Your task to perform on an android device: View the shopping cart on newegg. Add "dell xps" to the cart on newegg, then select checkout. Image 0: 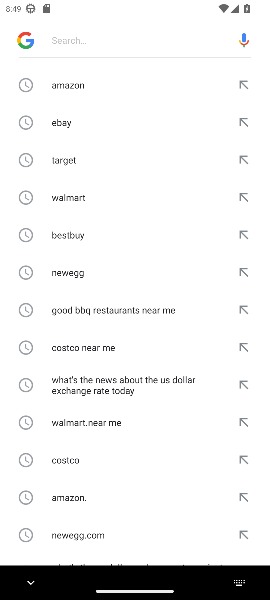
Step 0: press home button
Your task to perform on an android device: View the shopping cart on newegg. Add "dell xps" to the cart on newegg, then select checkout. Image 1: 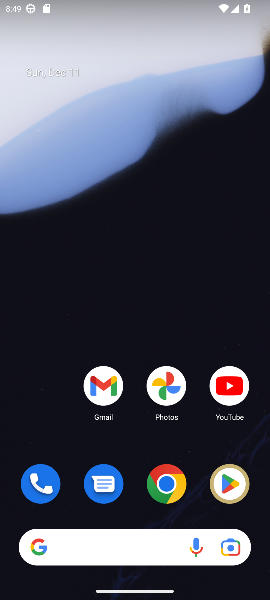
Step 1: click (167, 486)
Your task to perform on an android device: View the shopping cart on newegg. Add "dell xps" to the cart on newegg, then select checkout. Image 2: 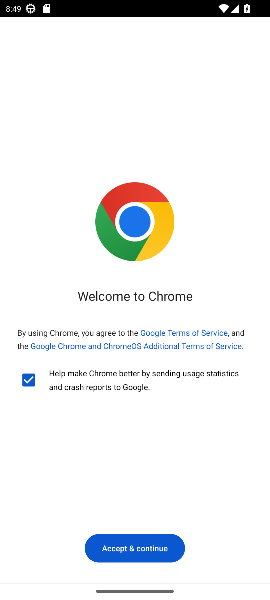
Step 2: click (128, 554)
Your task to perform on an android device: View the shopping cart on newegg. Add "dell xps" to the cart on newegg, then select checkout. Image 3: 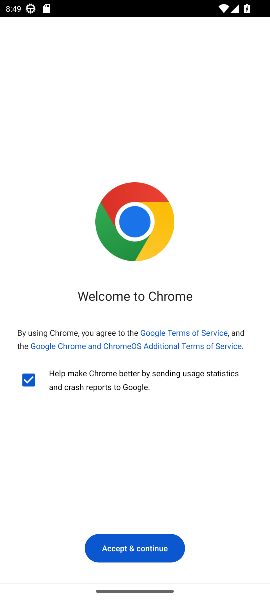
Step 3: click (128, 554)
Your task to perform on an android device: View the shopping cart on newegg. Add "dell xps" to the cart on newegg, then select checkout. Image 4: 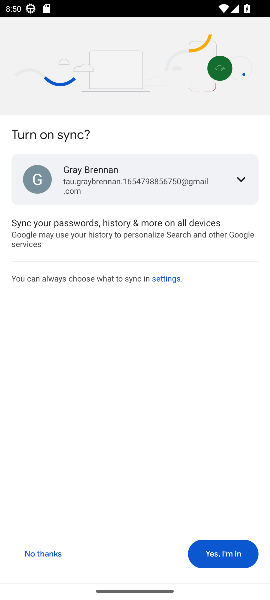
Step 4: click (128, 554)
Your task to perform on an android device: View the shopping cart on newegg. Add "dell xps" to the cart on newegg, then select checkout. Image 5: 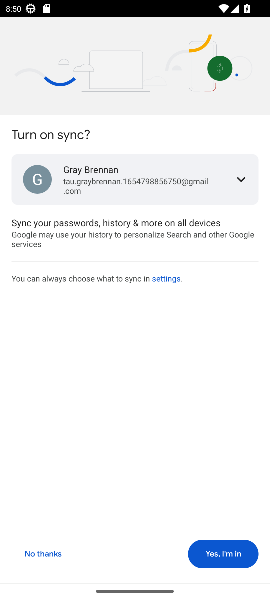
Step 5: click (128, 554)
Your task to perform on an android device: View the shopping cart on newegg. Add "dell xps" to the cart on newegg, then select checkout. Image 6: 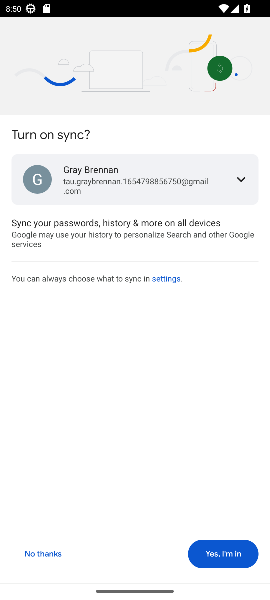
Step 6: click (128, 554)
Your task to perform on an android device: View the shopping cart on newegg. Add "dell xps" to the cart on newegg, then select checkout. Image 7: 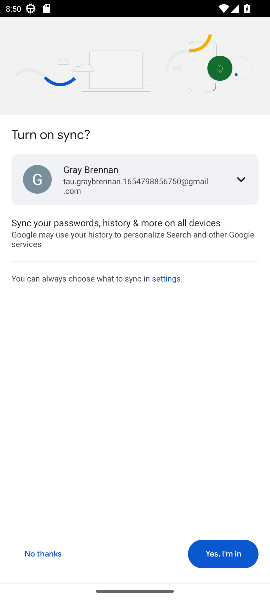
Step 7: click (128, 554)
Your task to perform on an android device: View the shopping cart on newegg. Add "dell xps" to the cart on newegg, then select checkout. Image 8: 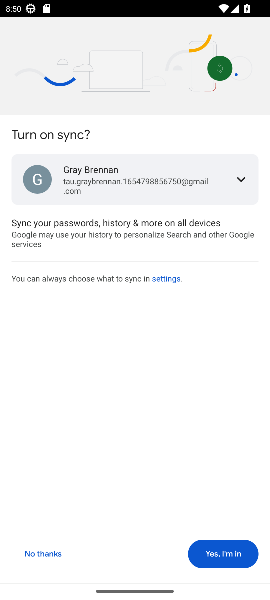
Step 8: click (128, 554)
Your task to perform on an android device: View the shopping cart on newegg. Add "dell xps" to the cart on newegg, then select checkout. Image 9: 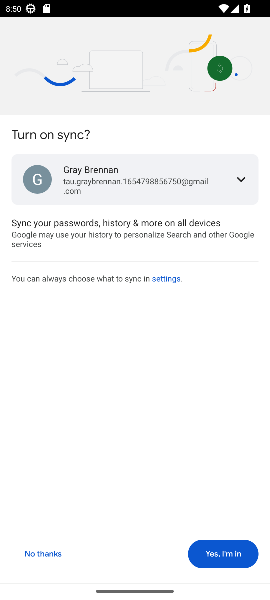
Step 9: click (128, 554)
Your task to perform on an android device: View the shopping cart on newegg. Add "dell xps" to the cart on newegg, then select checkout. Image 10: 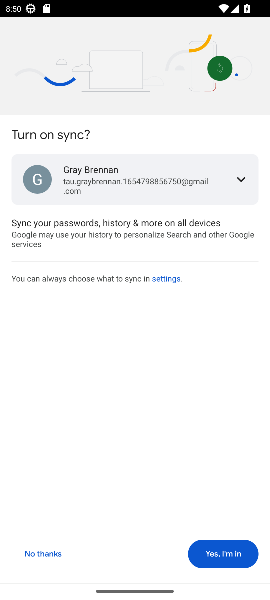
Step 10: click (225, 553)
Your task to perform on an android device: View the shopping cart on newegg. Add "dell xps" to the cart on newegg, then select checkout. Image 11: 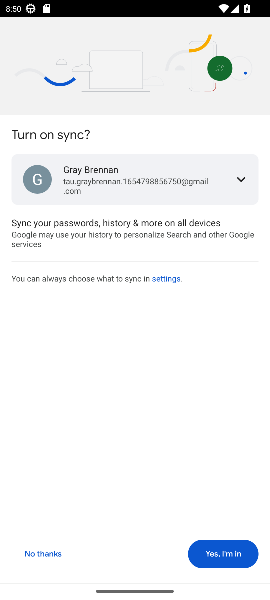
Step 11: click (225, 553)
Your task to perform on an android device: View the shopping cart on newegg. Add "dell xps" to the cart on newegg, then select checkout. Image 12: 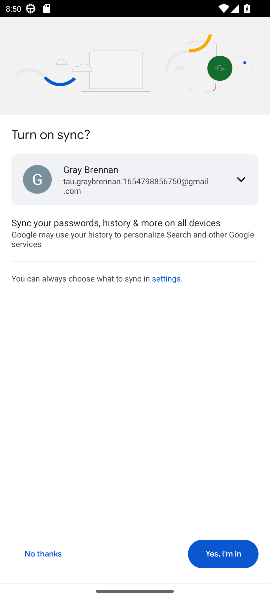
Step 12: click (225, 553)
Your task to perform on an android device: View the shopping cart on newegg. Add "dell xps" to the cart on newegg, then select checkout. Image 13: 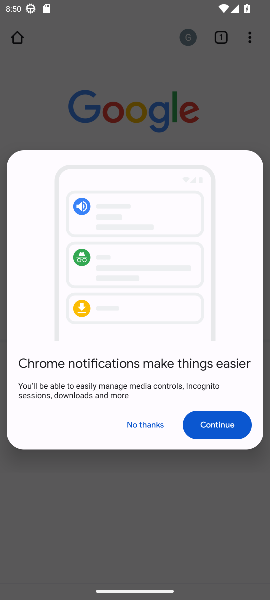
Step 13: click (232, 423)
Your task to perform on an android device: View the shopping cart on newegg. Add "dell xps" to the cart on newegg, then select checkout. Image 14: 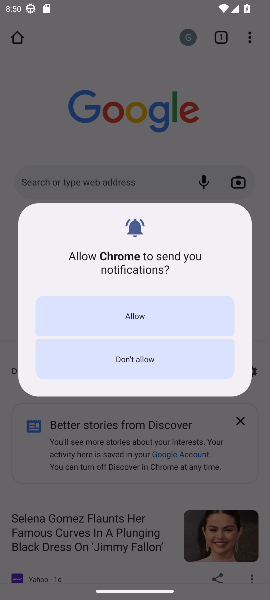
Step 14: click (141, 467)
Your task to perform on an android device: View the shopping cart on newegg. Add "dell xps" to the cart on newegg, then select checkout. Image 15: 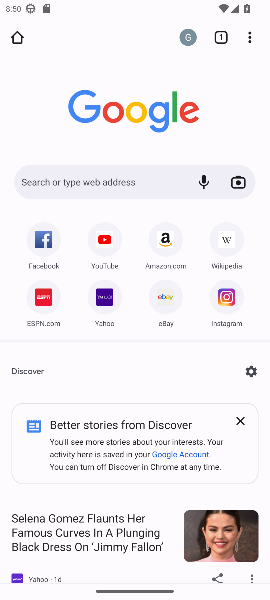
Step 15: click (102, 159)
Your task to perform on an android device: View the shopping cart on newegg. Add "dell xps" to the cart on newegg, then select checkout. Image 16: 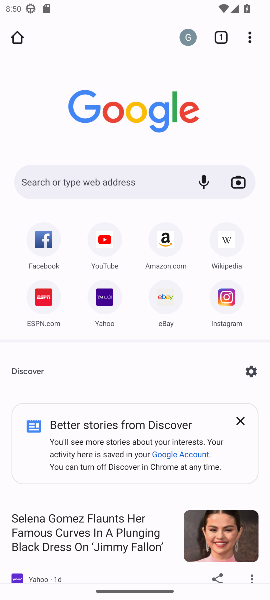
Step 16: click (96, 171)
Your task to perform on an android device: View the shopping cart on newegg. Add "dell xps" to the cart on newegg, then select checkout. Image 17: 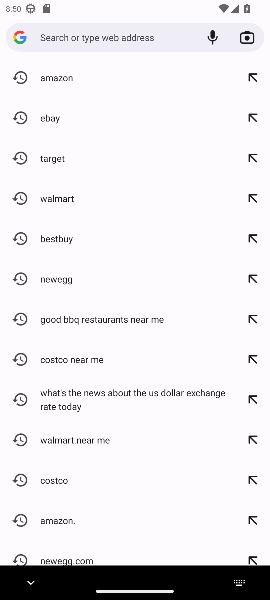
Step 17: click (54, 274)
Your task to perform on an android device: View the shopping cart on newegg. Add "dell xps" to the cart on newegg, then select checkout. Image 18: 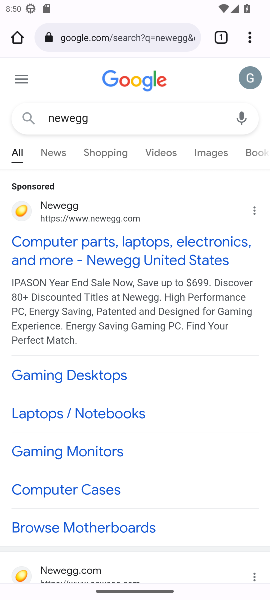
Step 18: click (78, 252)
Your task to perform on an android device: View the shopping cart on newegg. Add "dell xps" to the cart on newegg, then select checkout. Image 19: 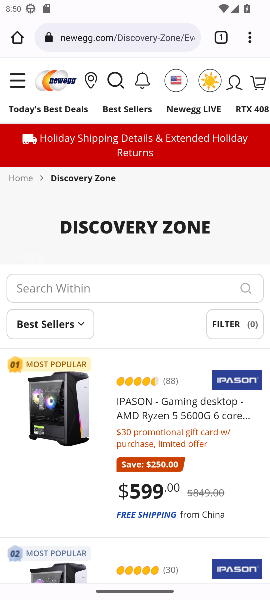
Step 19: click (261, 86)
Your task to perform on an android device: View the shopping cart on newegg. Add "dell xps" to the cart on newegg, then select checkout. Image 20: 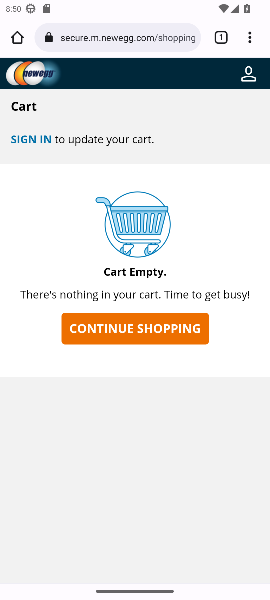
Step 20: task complete